Your task to perform on an android device: Open sound settings Image 0: 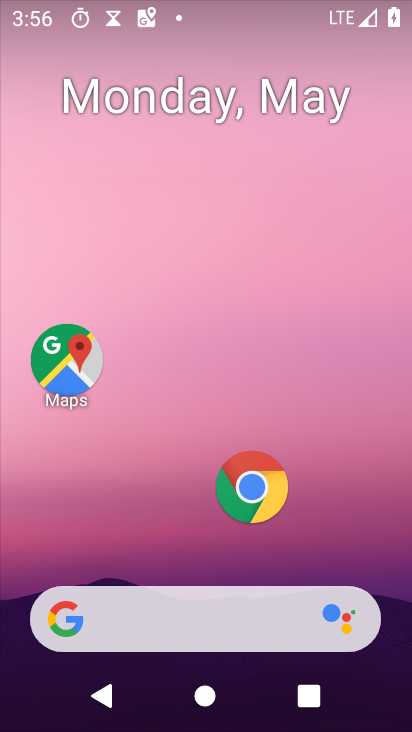
Step 0: drag from (193, 534) to (193, 62)
Your task to perform on an android device: Open sound settings Image 1: 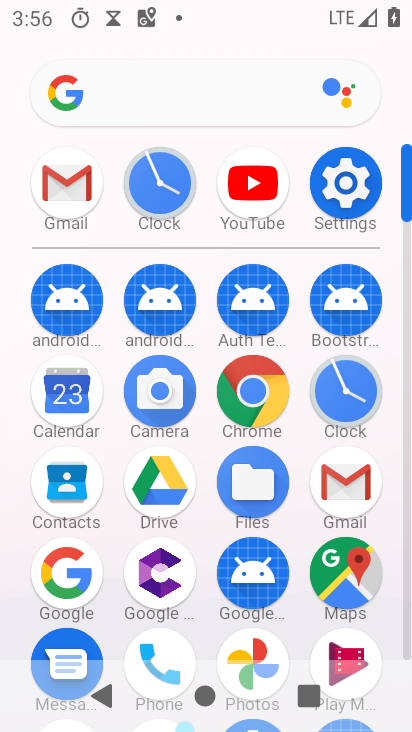
Step 1: click (338, 188)
Your task to perform on an android device: Open sound settings Image 2: 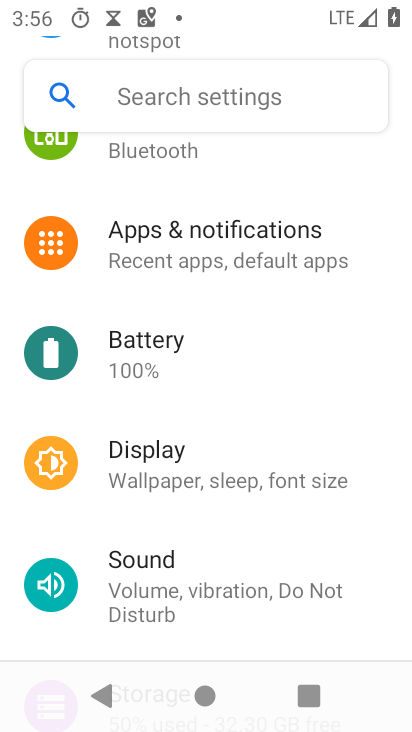
Step 2: click (160, 604)
Your task to perform on an android device: Open sound settings Image 3: 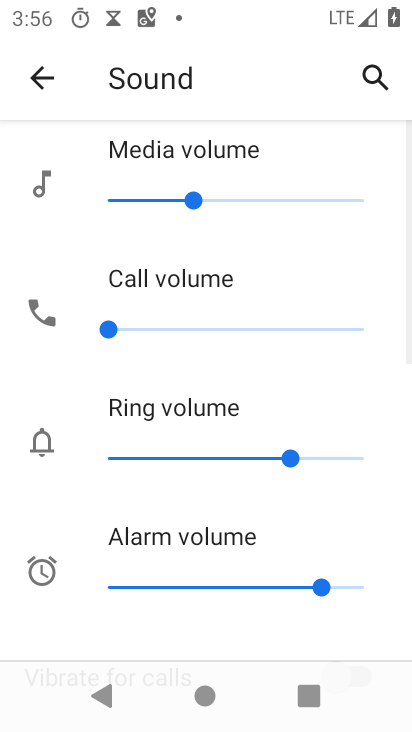
Step 3: task complete